Your task to perform on an android device: install app "Duolingo: language lessons" Image 0: 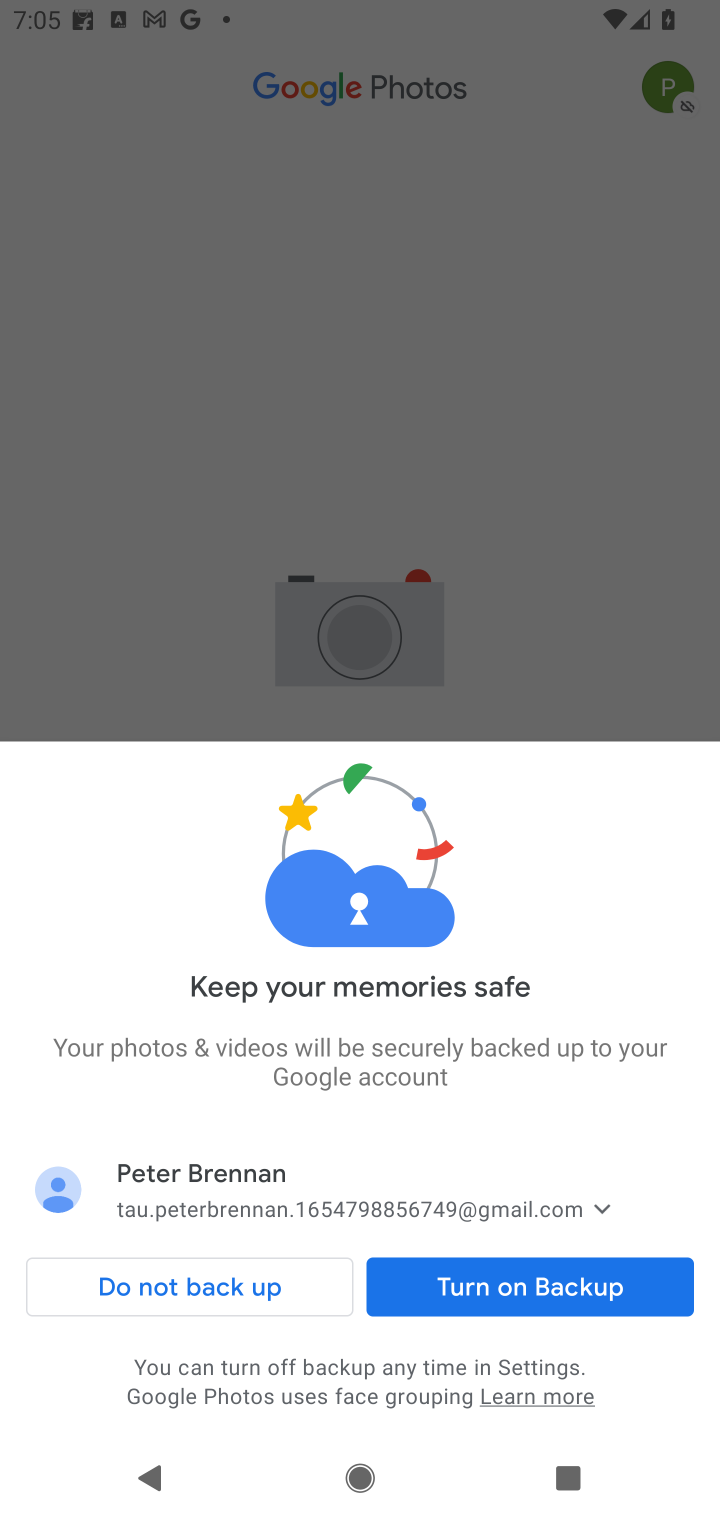
Step 0: press home button
Your task to perform on an android device: install app "Duolingo: language lessons" Image 1: 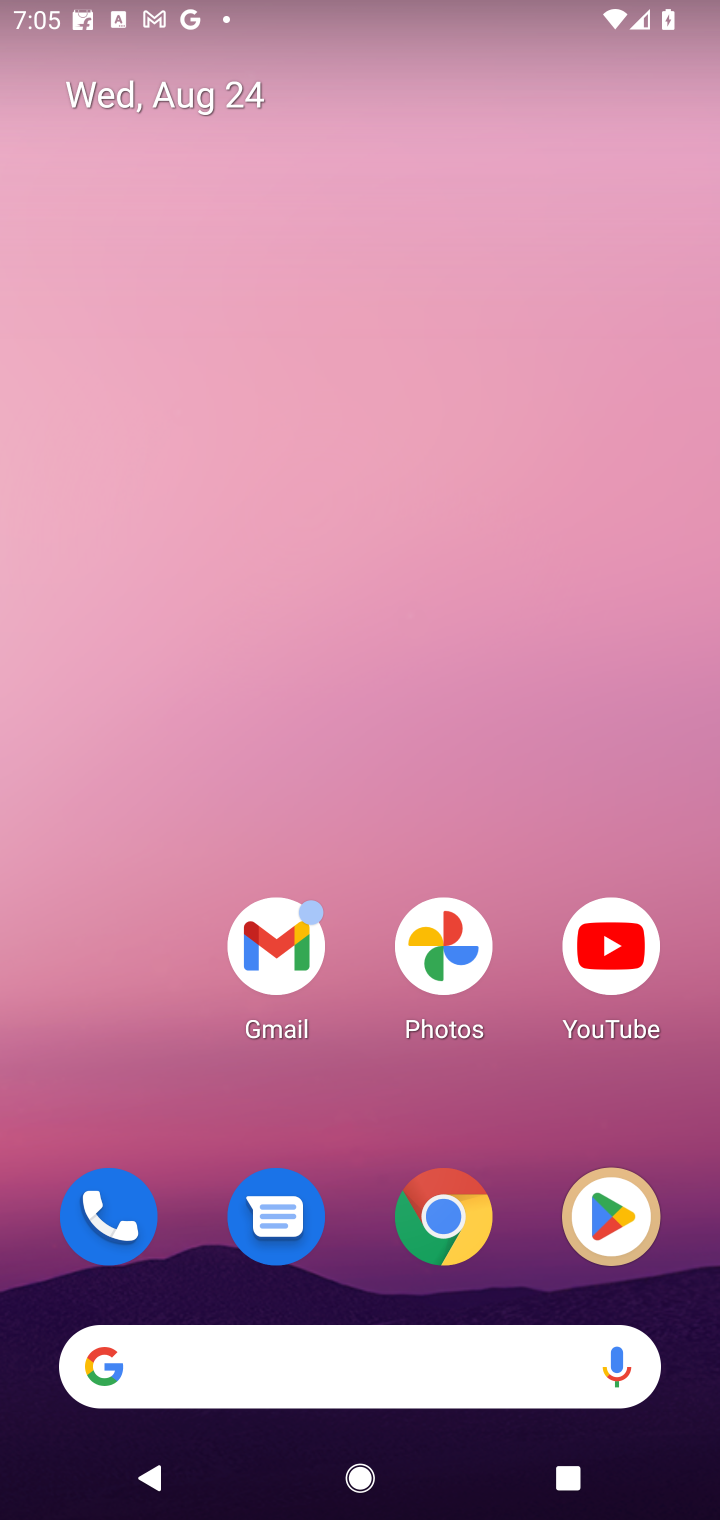
Step 1: click (619, 1219)
Your task to perform on an android device: install app "Duolingo: language lessons" Image 2: 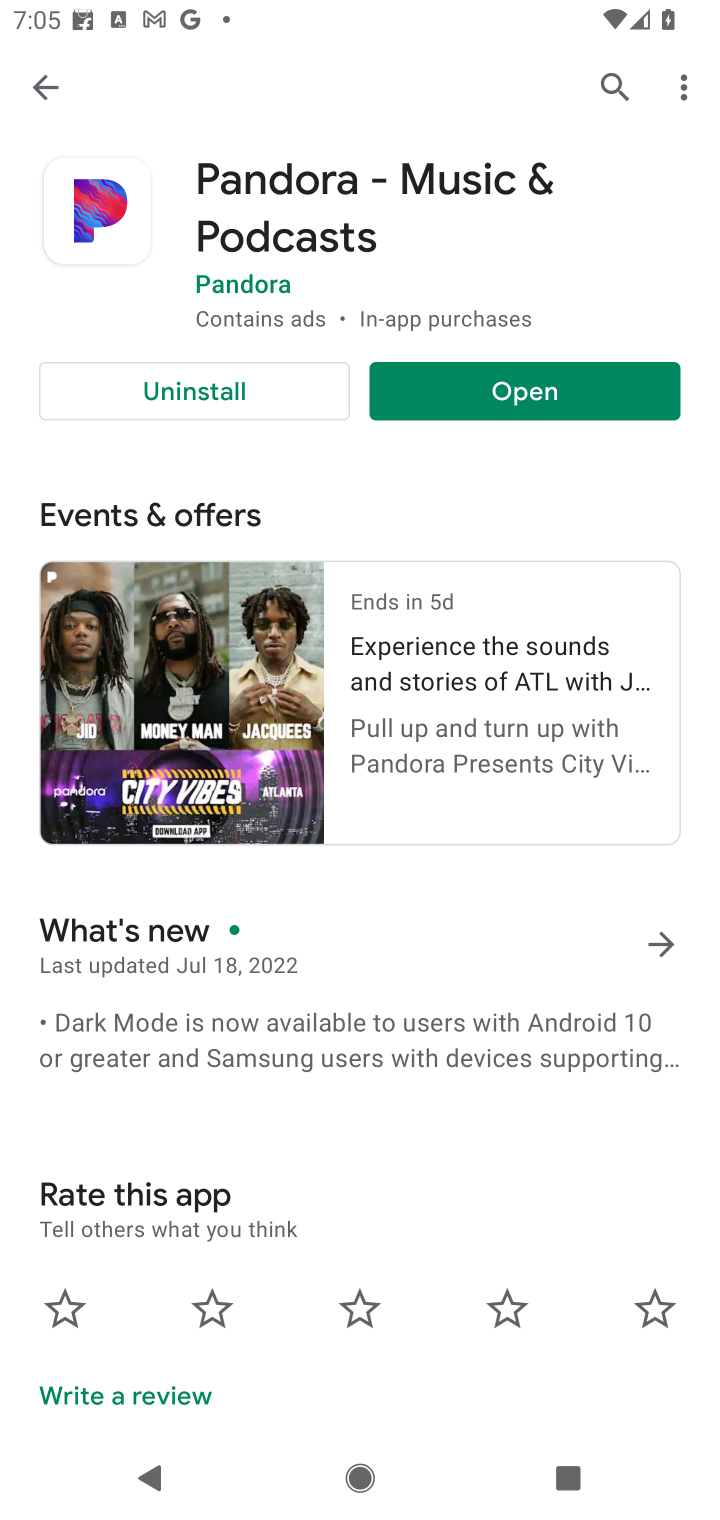
Step 2: click (607, 87)
Your task to perform on an android device: install app "Duolingo: language lessons" Image 3: 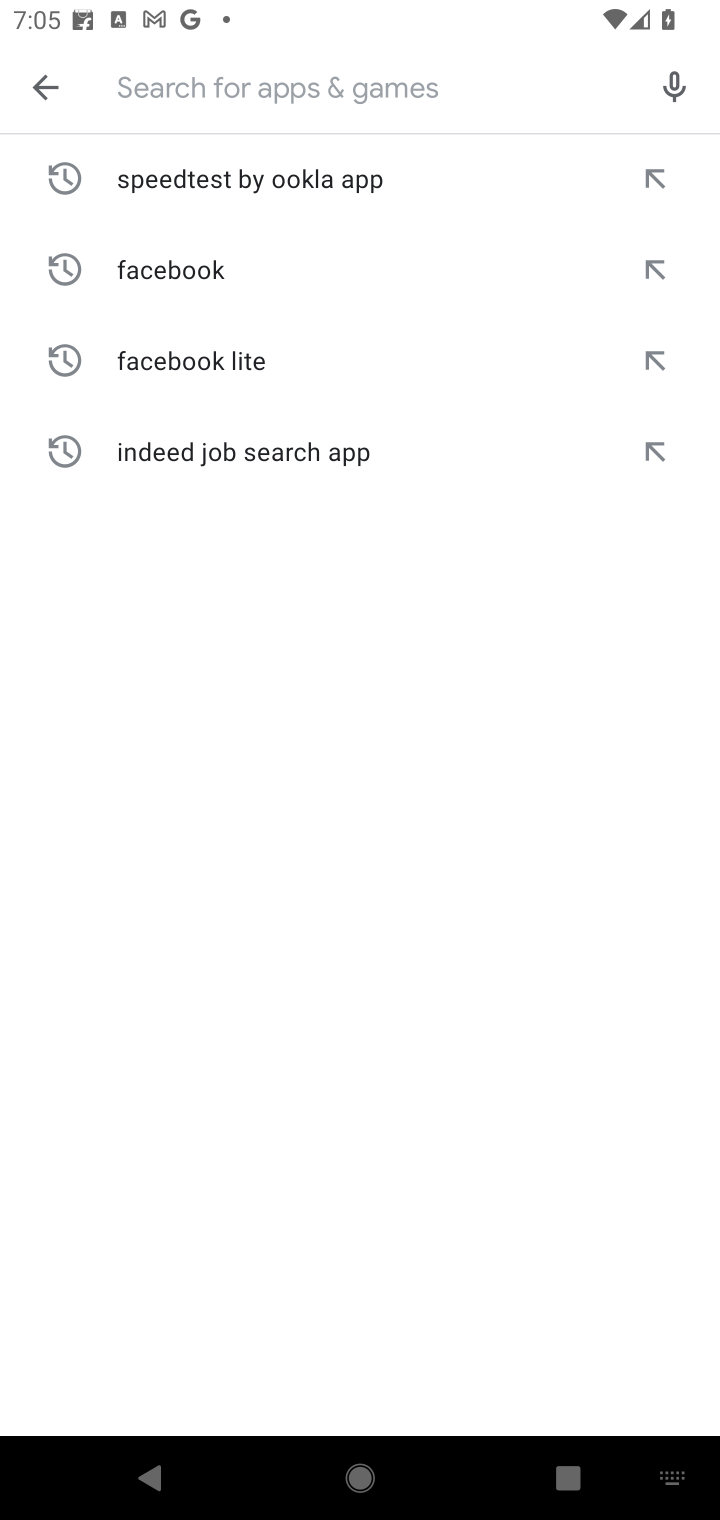
Step 3: type "Duolingo: language lesson"
Your task to perform on an android device: install app "Duolingo: language lessons" Image 4: 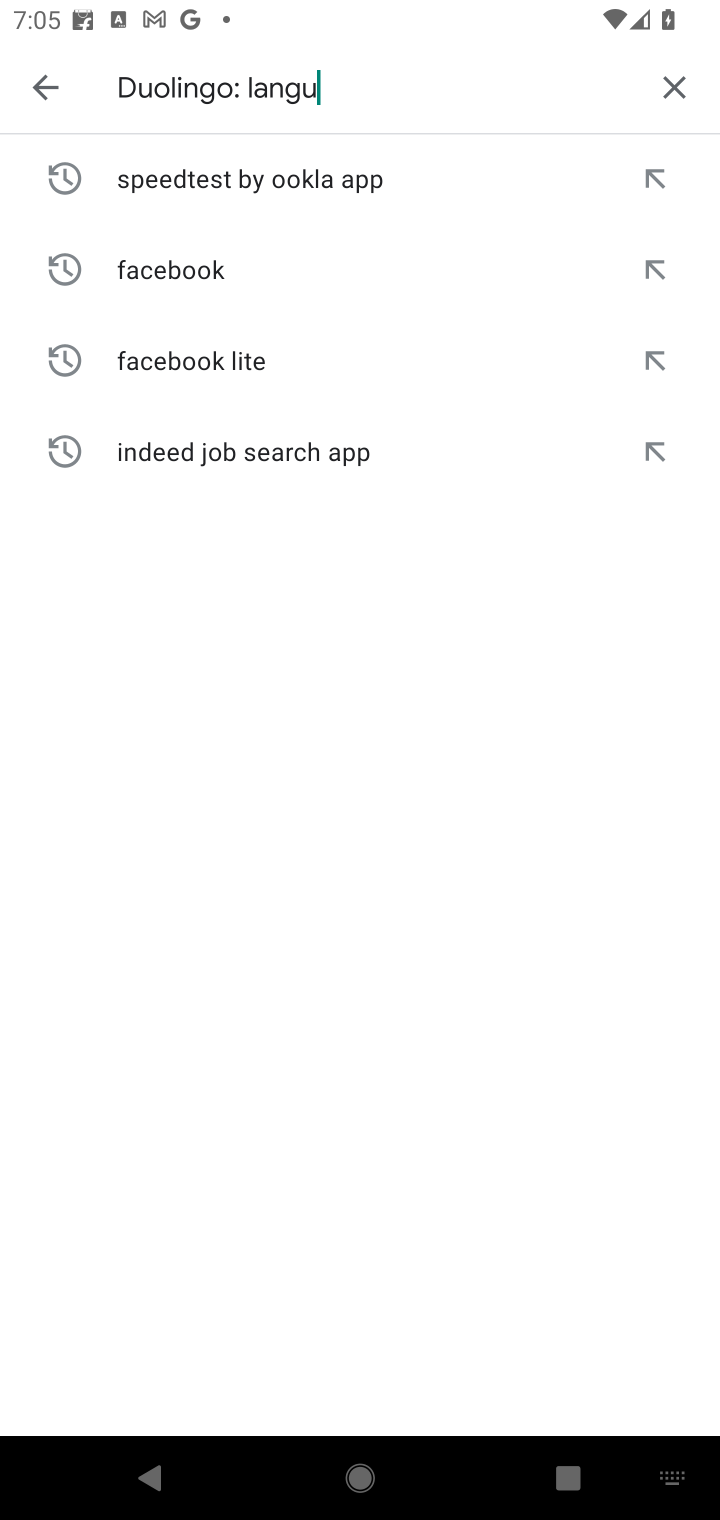
Step 4: type ""
Your task to perform on an android device: install app "Duolingo: language lessons" Image 5: 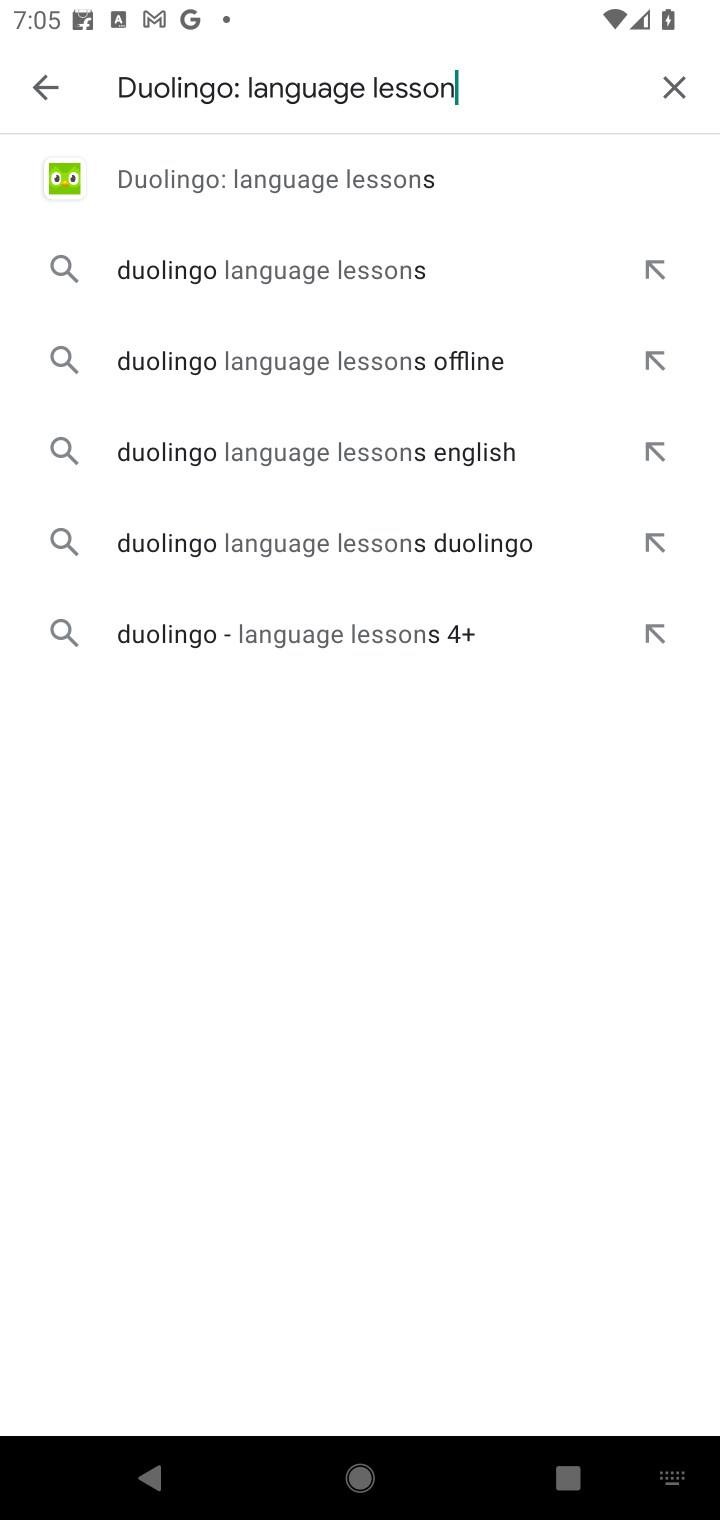
Step 5: click (209, 177)
Your task to perform on an android device: install app "Duolingo: language lessons" Image 6: 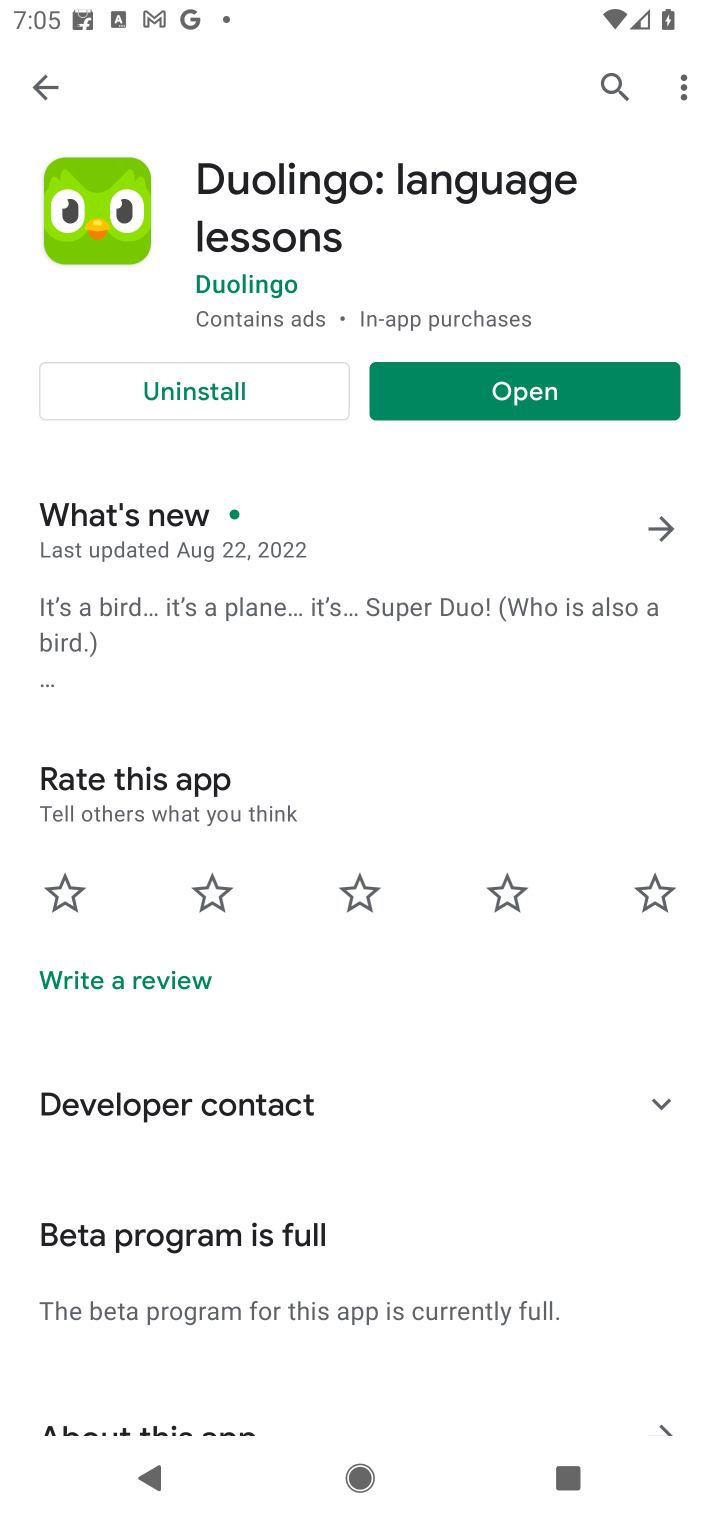
Step 6: task complete